Your task to perform on an android device: Open calendar and show me the third week of next month Image 0: 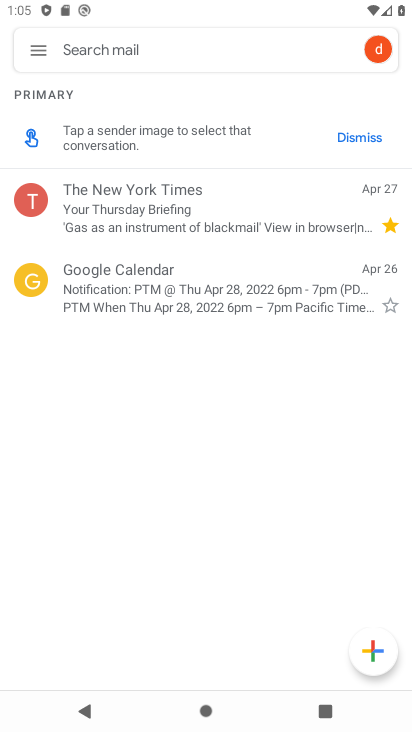
Step 0: press home button
Your task to perform on an android device: Open calendar and show me the third week of next month Image 1: 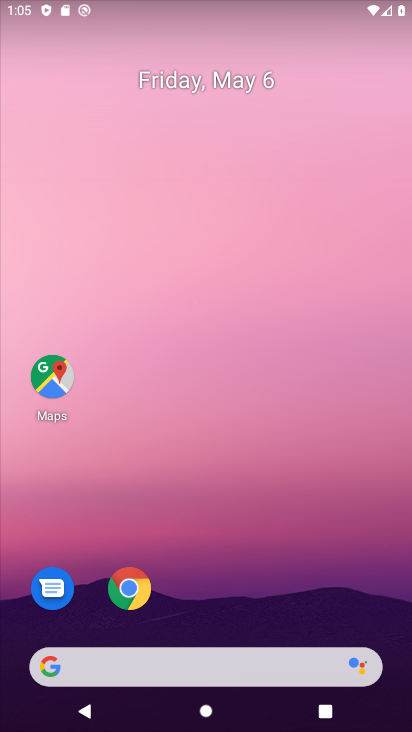
Step 1: drag from (384, 590) to (359, 185)
Your task to perform on an android device: Open calendar and show me the third week of next month Image 2: 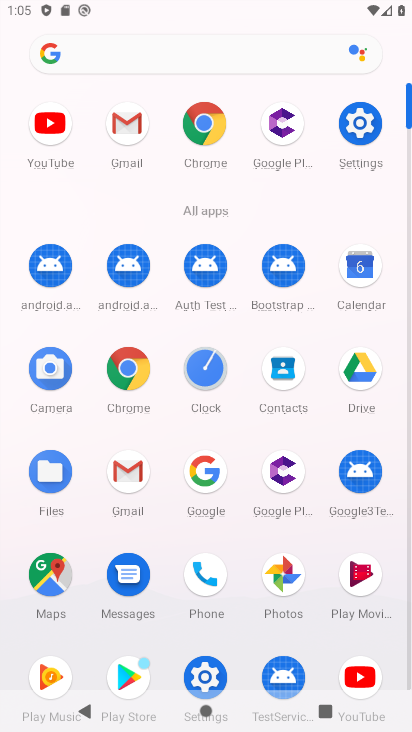
Step 2: click (367, 256)
Your task to perform on an android device: Open calendar and show me the third week of next month Image 3: 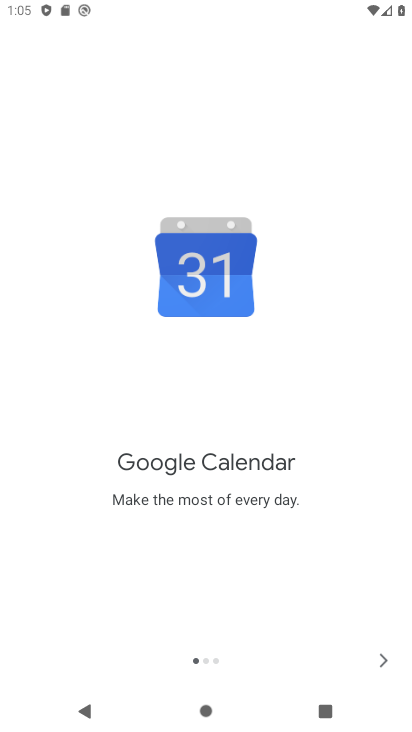
Step 3: click (383, 655)
Your task to perform on an android device: Open calendar and show me the third week of next month Image 4: 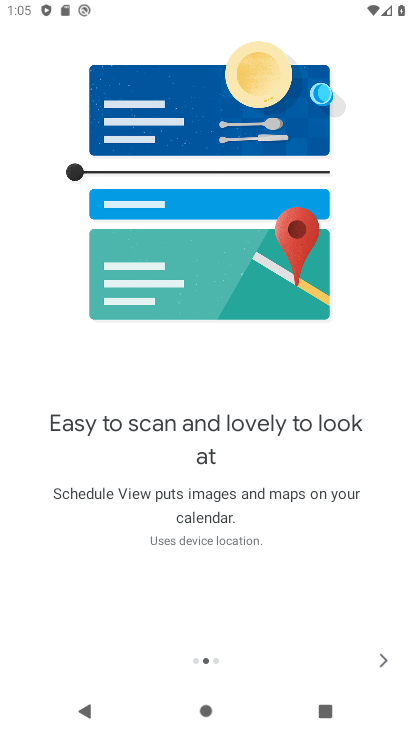
Step 4: click (383, 655)
Your task to perform on an android device: Open calendar and show me the third week of next month Image 5: 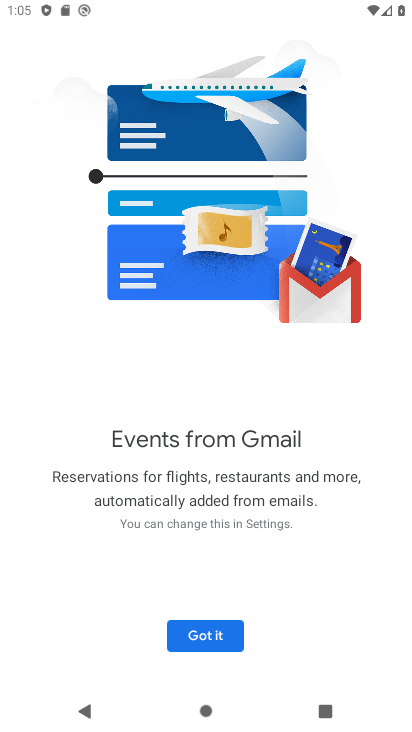
Step 5: click (202, 644)
Your task to perform on an android device: Open calendar and show me the third week of next month Image 6: 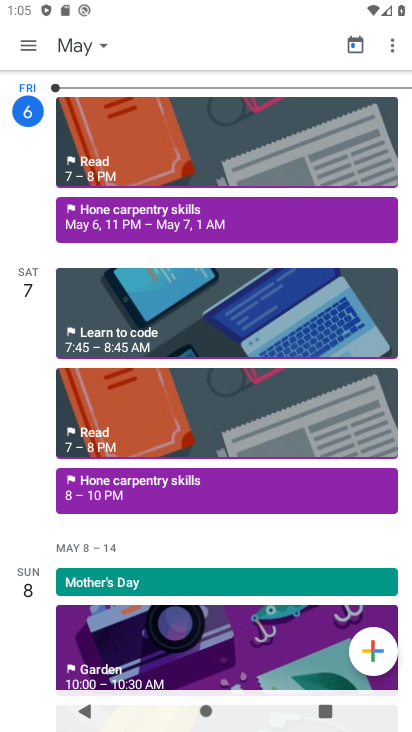
Step 6: click (80, 40)
Your task to perform on an android device: Open calendar and show me the third week of next month Image 7: 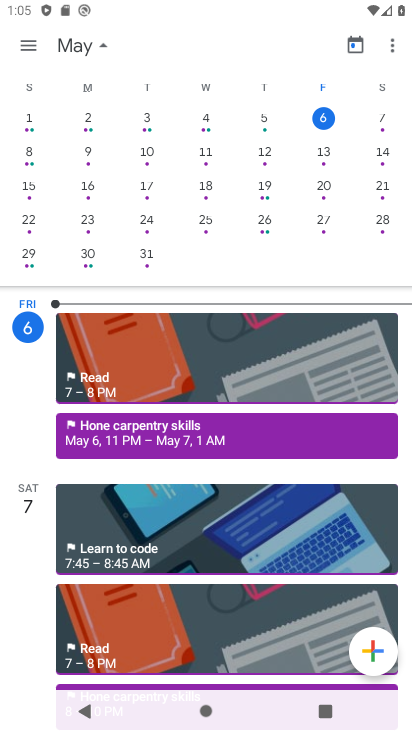
Step 7: drag from (351, 108) to (0, 101)
Your task to perform on an android device: Open calendar and show me the third week of next month Image 8: 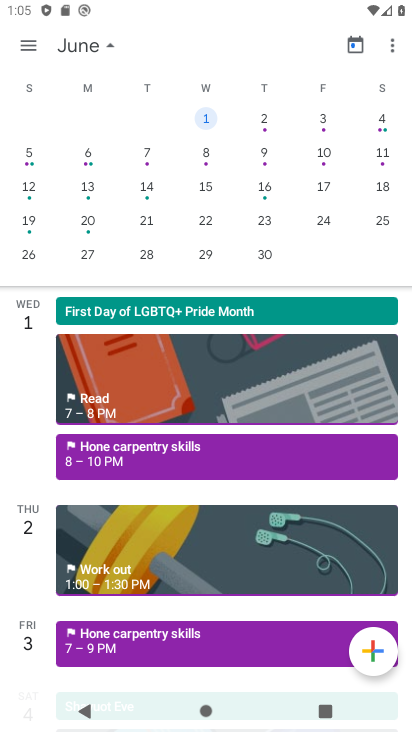
Step 8: click (35, 194)
Your task to perform on an android device: Open calendar and show me the third week of next month Image 9: 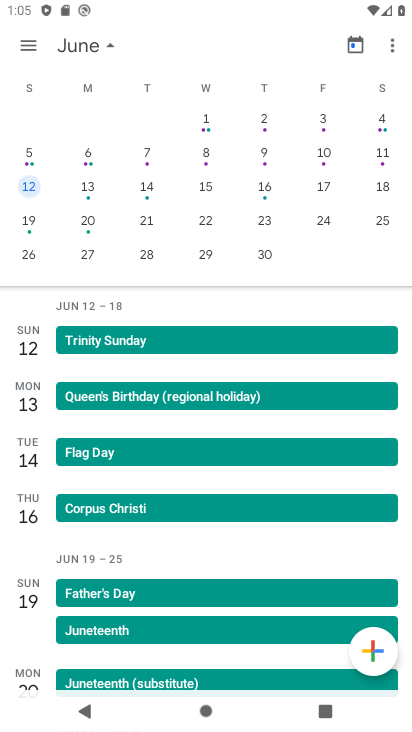
Step 9: task complete